Your task to perform on an android device: open sync settings in chrome Image 0: 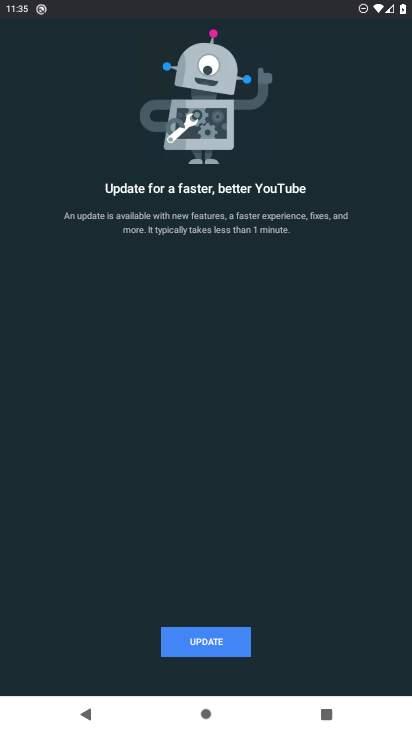
Step 0: drag from (294, 535) to (296, 62)
Your task to perform on an android device: open sync settings in chrome Image 1: 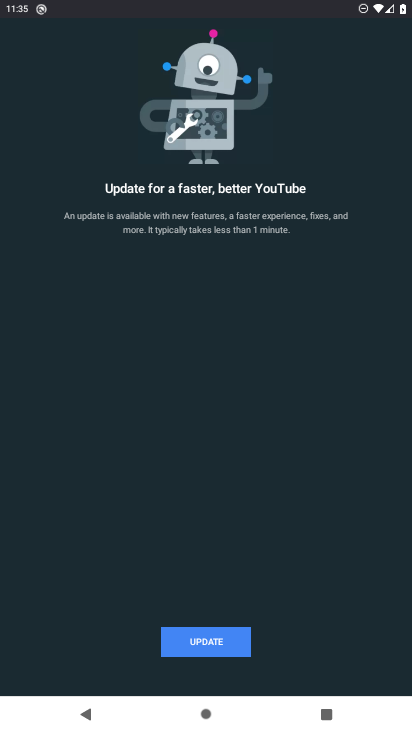
Step 1: drag from (295, 490) to (347, 325)
Your task to perform on an android device: open sync settings in chrome Image 2: 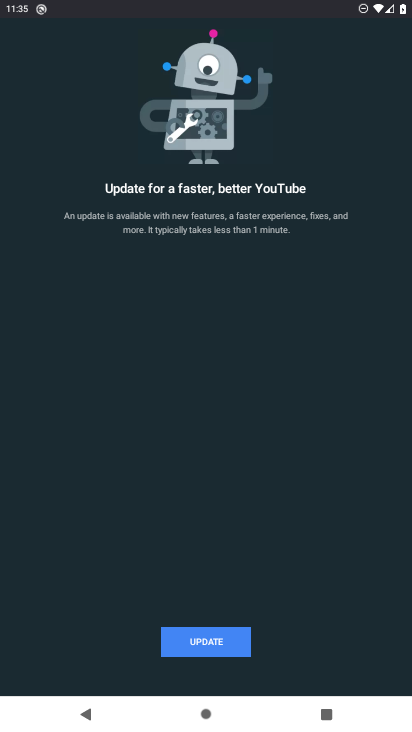
Step 2: press home button
Your task to perform on an android device: open sync settings in chrome Image 3: 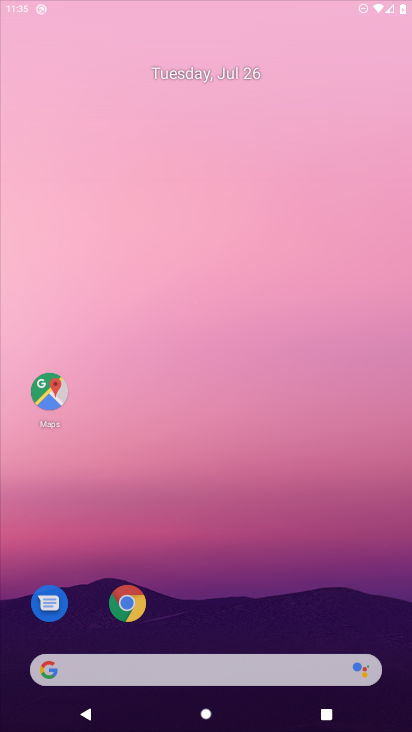
Step 3: drag from (163, 597) to (276, 89)
Your task to perform on an android device: open sync settings in chrome Image 4: 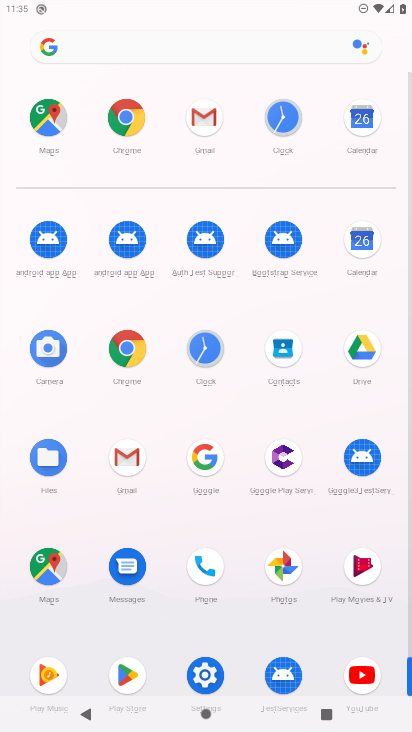
Step 4: click (142, 345)
Your task to perform on an android device: open sync settings in chrome Image 5: 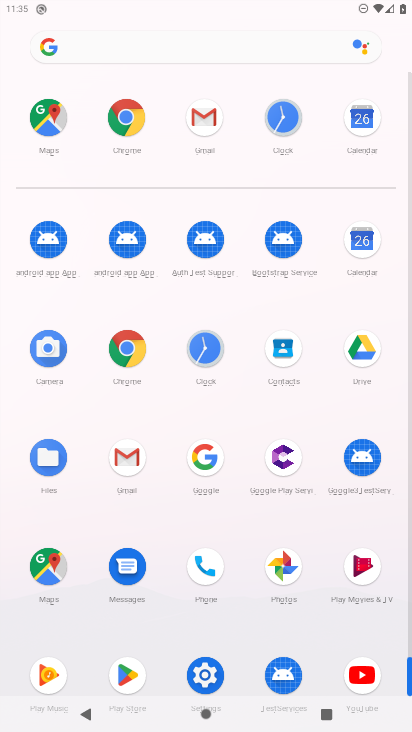
Step 5: click (135, 343)
Your task to perform on an android device: open sync settings in chrome Image 6: 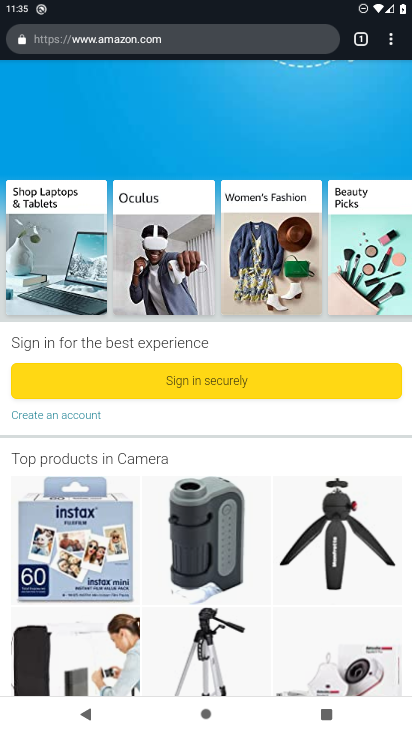
Step 6: drag from (234, 574) to (266, 237)
Your task to perform on an android device: open sync settings in chrome Image 7: 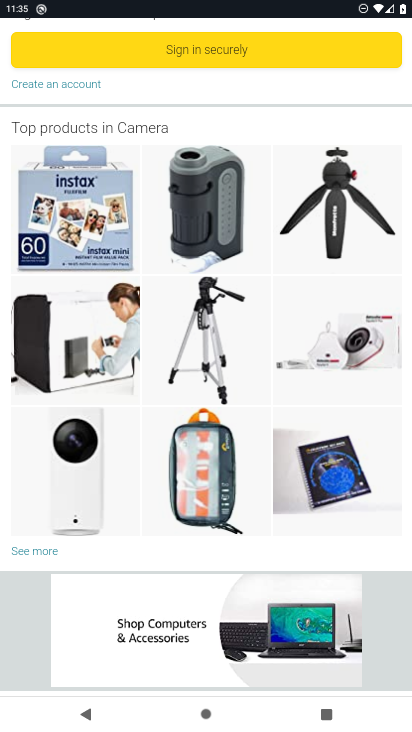
Step 7: drag from (183, 365) to (208, 682)
Your task to perform on an android device: open sync settings in chrome Image 8: 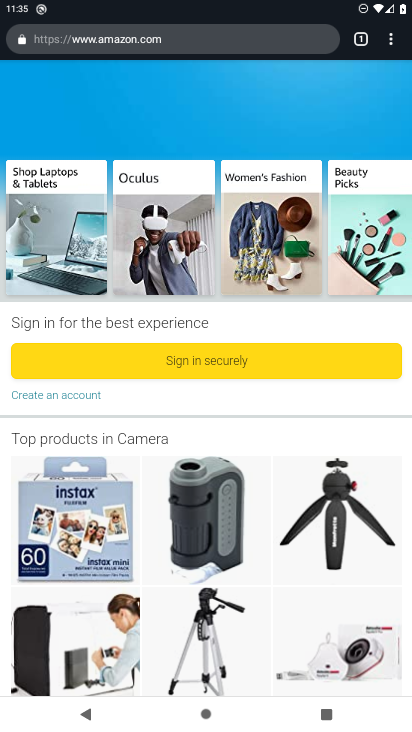
Step 8: drag from (391, 32) to (290, 467)
Your task to perform on an android device: open sync settings in chrome Image 9: 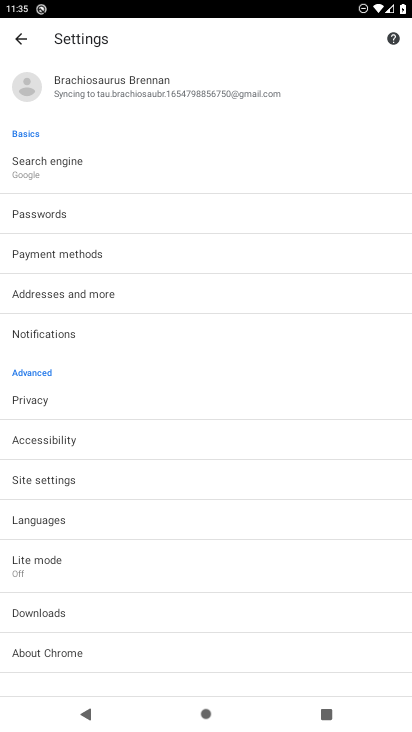
Step 9: drag from (178, 662) to (284, 228)
Your task to perform on an android device: open sync settings in chrome Image 10: 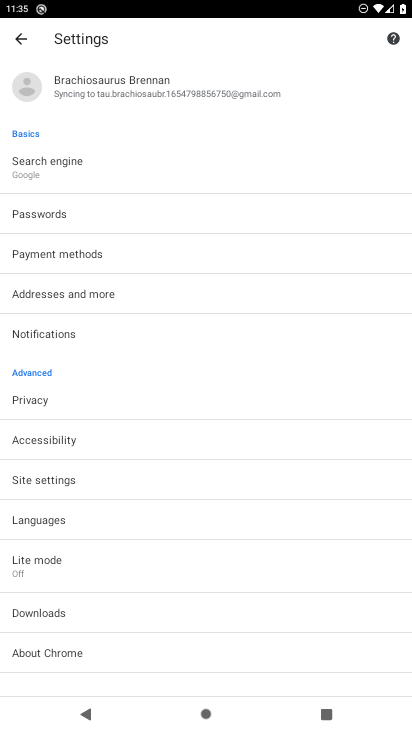
Step 10: click (105, 481)
Your task to perform on an android device: open sync settings in chrome Image 11: 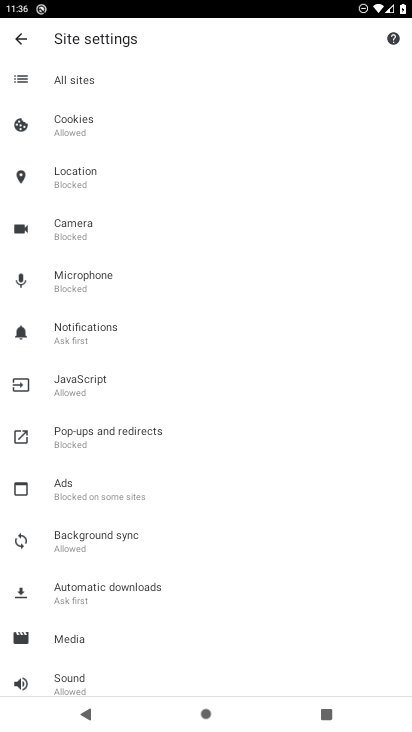
Step 11: click (74, 534)
Your task to perform on an android device: open sync settings in chrome Image 12: 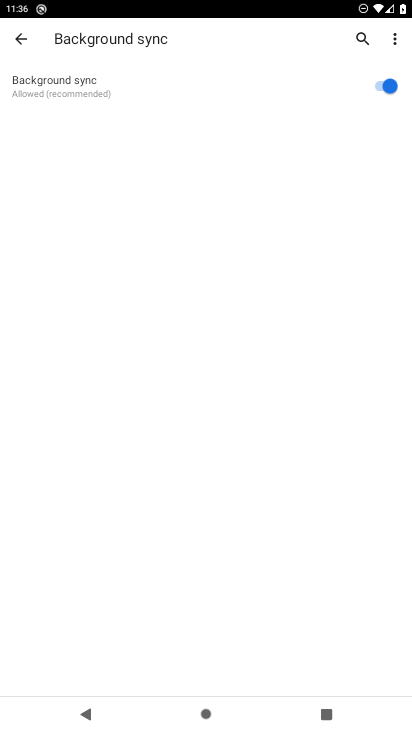
Step 12: drag from (162, 526) to (235, 120)
Your task to perform on an android device: open sync settings in chrome Image 13: 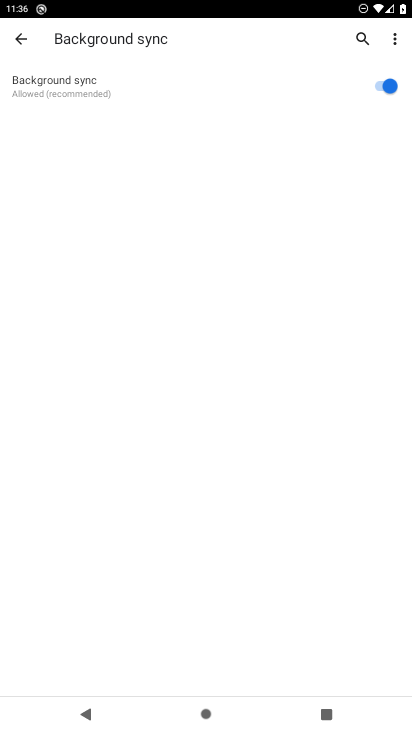
Step 13: click (390, 80)
Your task to perform on an android device: open sync settings in chrome Image 14: 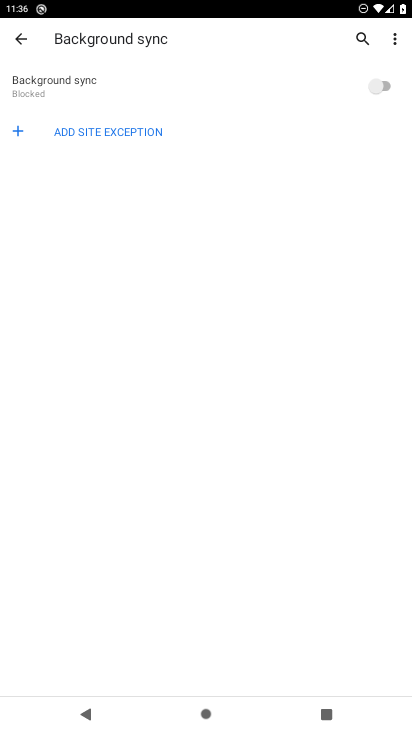
Step 14: task complete